Your task to perform on an android device: Search for seafood restaurants on Google Maps Image 0: 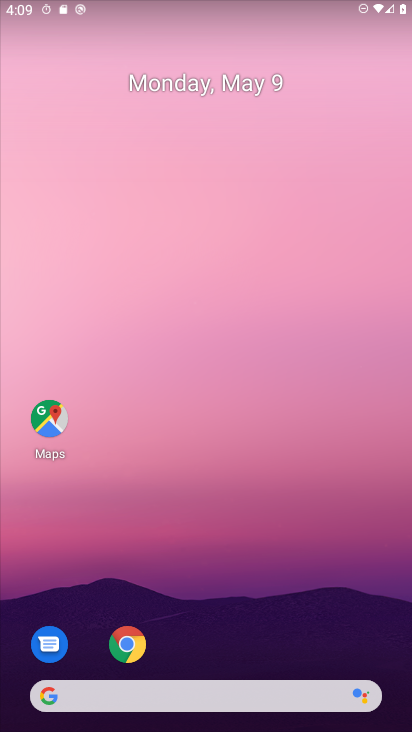
Step 0: click (59, 429)
Your task to perform on an android device: Search for seafood restaurants on Google Maps Image 1: 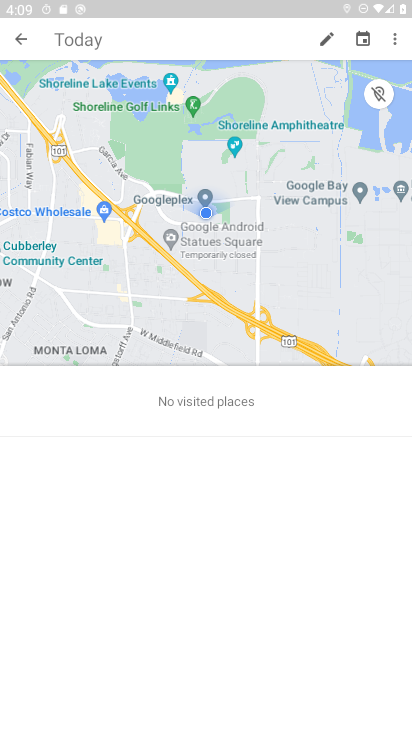
Step 1: click (23, 40)
Your task to perform on an android device: Search for seafood restaurants on Google Maps Image 2: 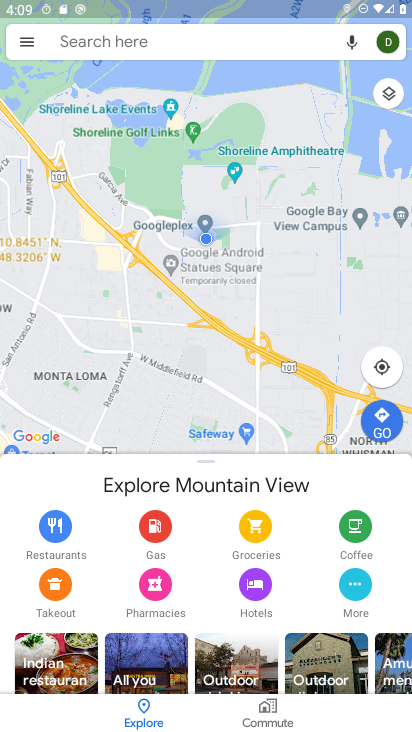
Step 2: click (173, 48)
Your task to perform on an android device: Search for seafood restaurants on Google Maps Image 3: 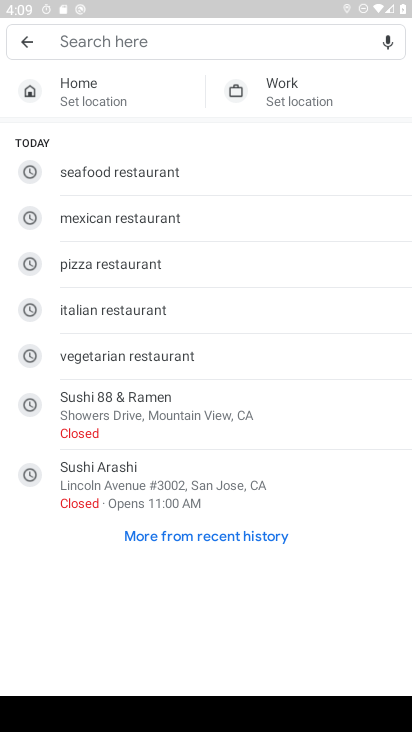
Step 3: click (80, 182)
Your task to perform on an android device: Search for seafood restaurants on Google Maps Image 4: 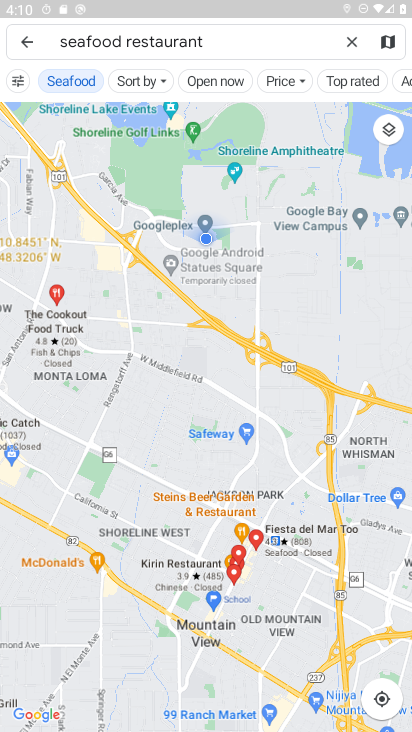
Step 4: task complete